Your task to perform on an android device: Show me productivity apps on the Play Store Image 0: 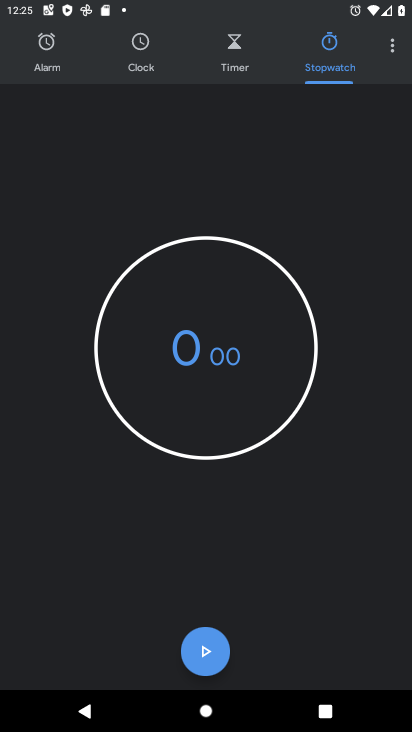
Step 0: press home button
Your task to perform on an android device: Show me productivity apps on the Play Store Image 1: 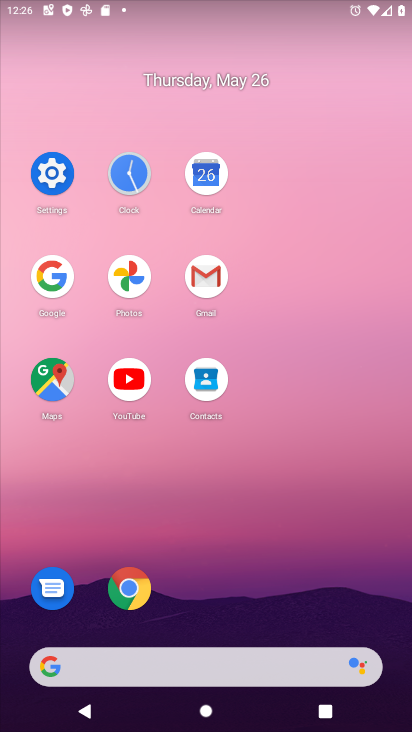
Step 1: drag from (221, 613) to (263, 247)
Your task to perform on an android device: Show me productivity apps on the Play Store Image 2: 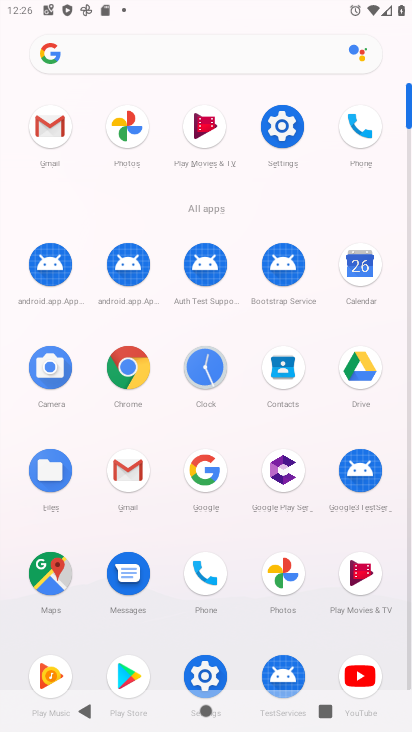
Step 2: click (125, 663)
Your task to perform on an android device: Show me productivity apps on the Play Store Image 3: 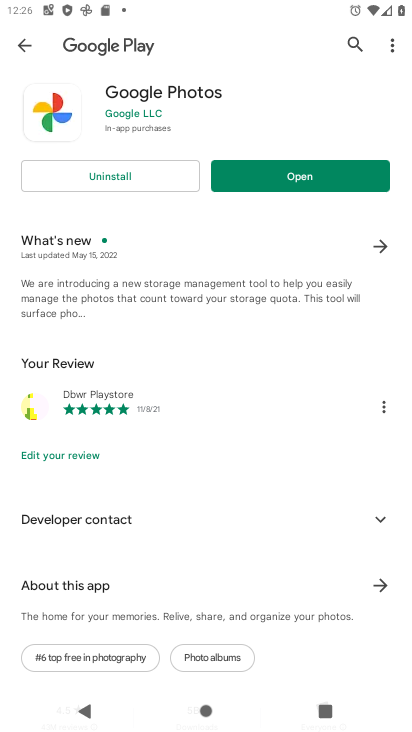
Step 3: click (25, 43)
Your task to perform on an android device: Show me productivity apps on the Play Store Image 4: 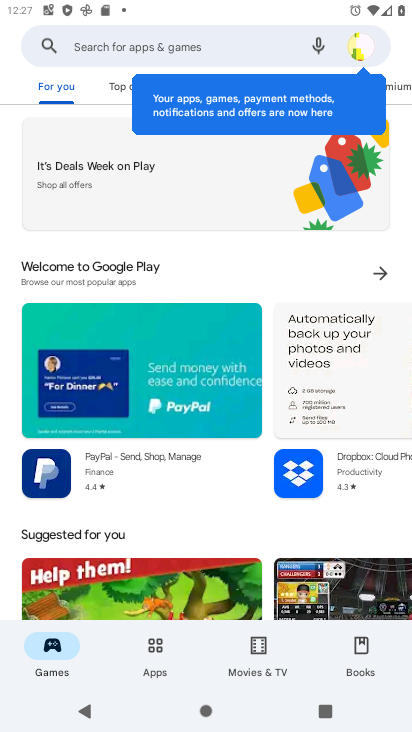
Step 4: click (146, 651)
Your task to perform on an android device: Show me productivity apps on the Play Store Image 5: 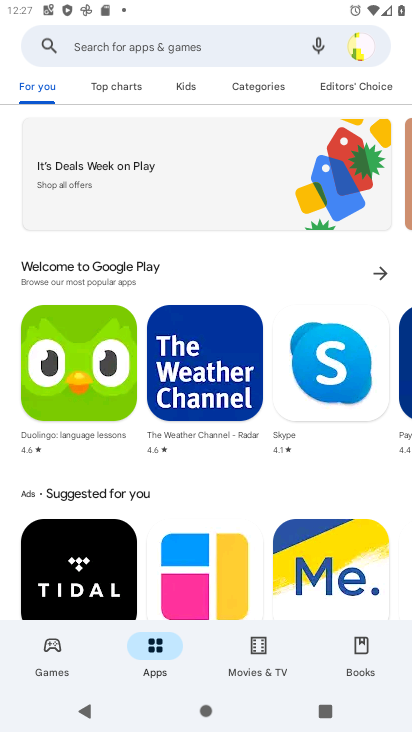
Step 5: click (274, 95)
Your task to perform on an android device: Show me productivity apps on the Play Store Image 6: 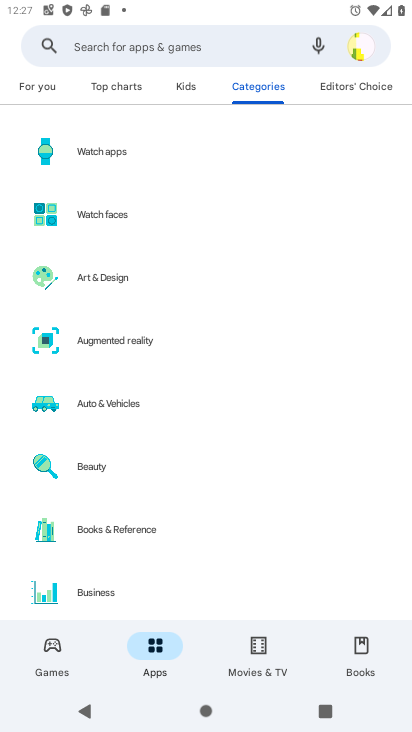
Step 6: drag from (209, 533) to (194, 82)
Your task to perform on an android device: Show me productivity apps on the Play Store Image 7: 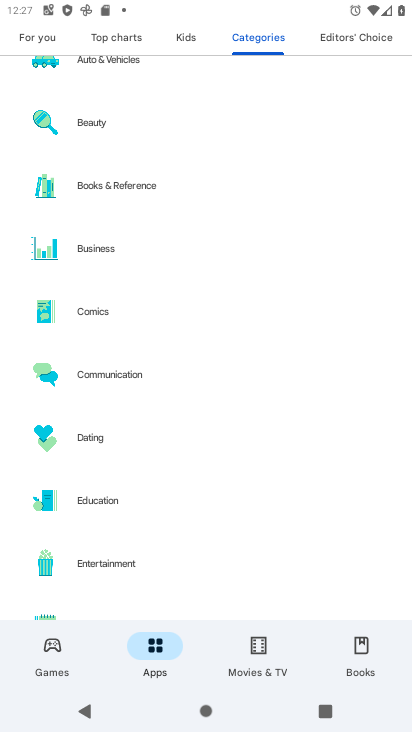
Step 7: drag from (185, 577) to (169, 122)
Your task to perform on an android device: Show me productivity apps on the Play Store Image 8: 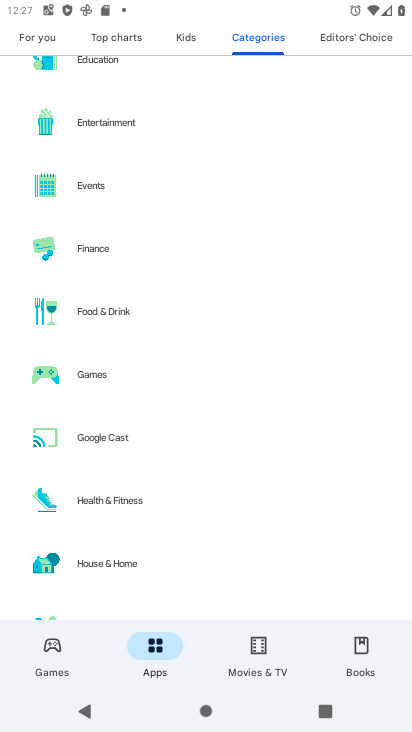
Step 8: drag from (220, 527) to (197, 95)
Your task to perform on an android device: Show me productivity apps on the Play Store Image 9: 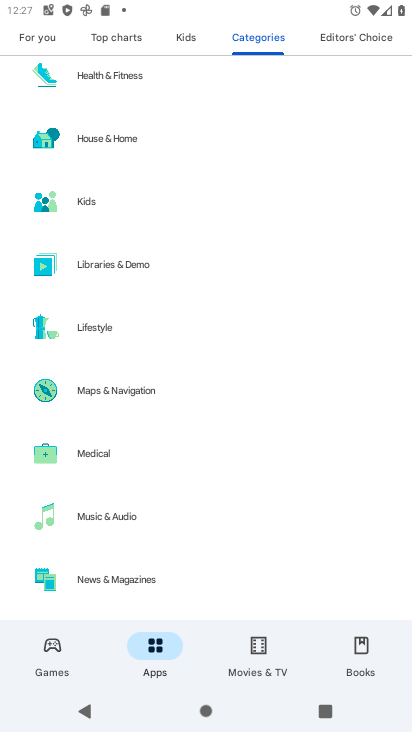
Step 9: drag from (178, 546) to (198, 151)
Your task to perform on an android device: Show me productivity apps on the Play Store Image 10: 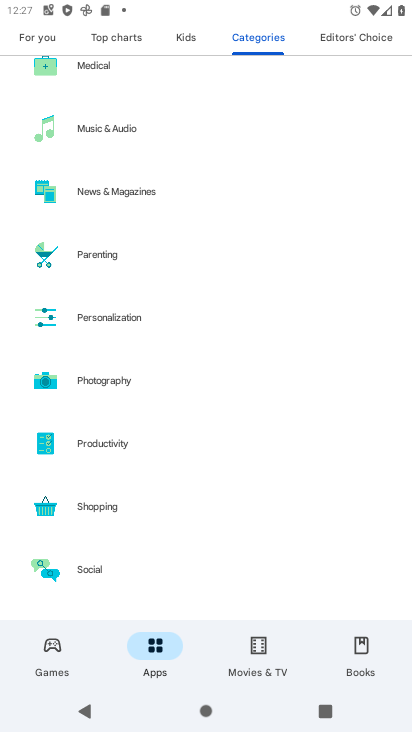
Step 10: click (226, 449)
Your task to perform on an android device: Show me productivity apps on the Play Store Image 11: 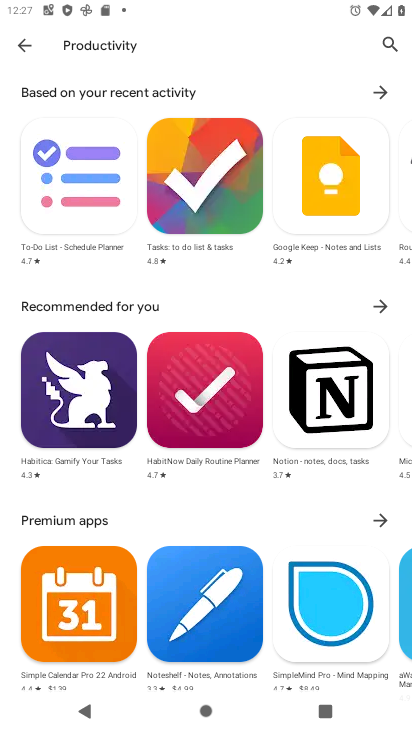
Step 11: task complete